Your task to perform on an android device: open the mobile data screen to see how much data has been used Image 0: 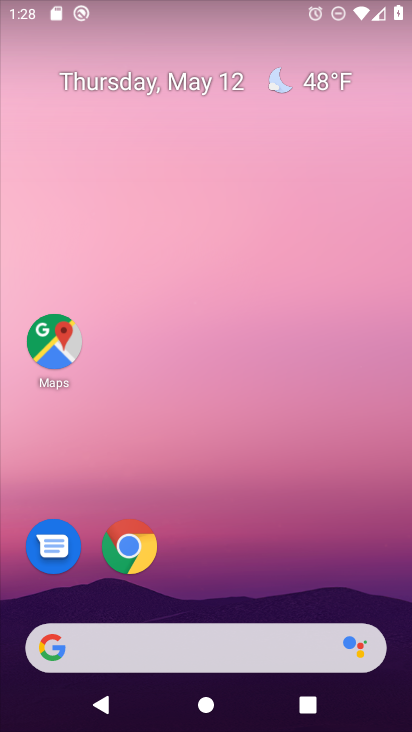
Step 0: drag from (170, 661) to (326, 149)
Your task to perform on an android device: open the mobile data screen to see how much data has been used Image 1: 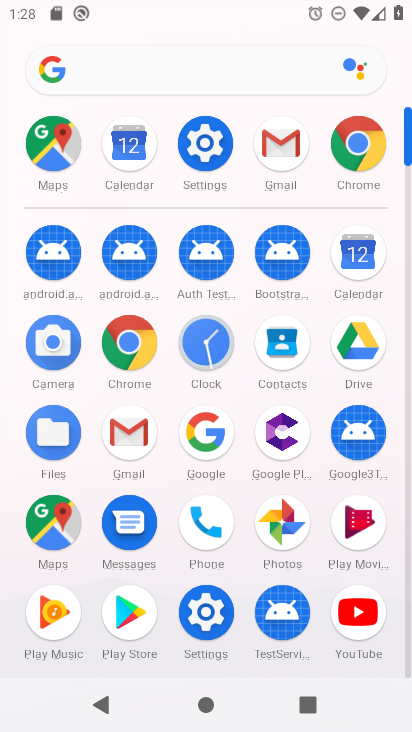
Step 1: click (214, 146)
Your task to perform on an android device: open the mobile data screen to see how much data has been used Image 2: 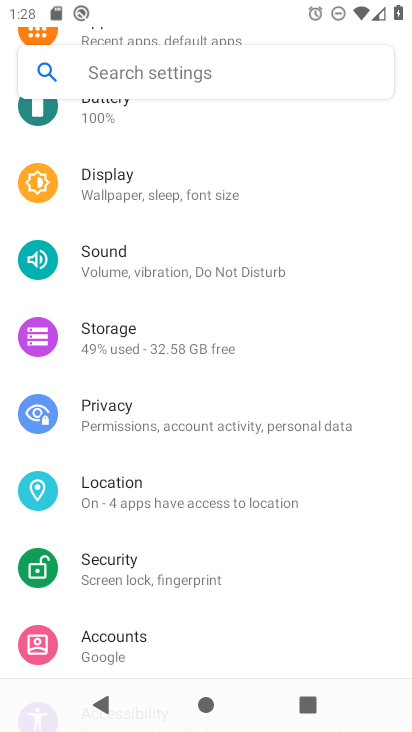
Step 2: drag from (244, 124) to (208, 518)
Your task to perform on an android device: open the mobile data screen to see how much data has been used Image 3: 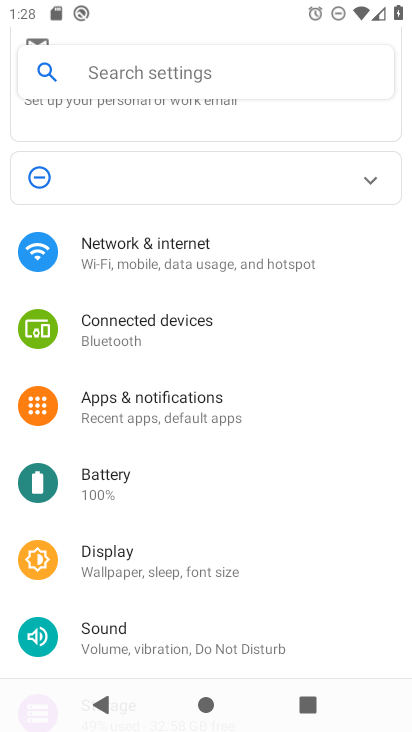
Step 3: click (255, 258)
Your task to perform on an android device: open the mobile data screen to see how much data has been used Image 4: 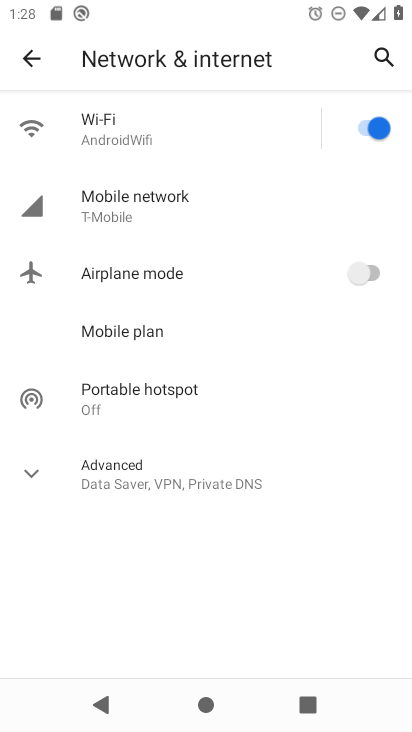
Step 4: click (135, 208)
Your task to perform on an android device: open the mobile data screen to see how much data has been used Image 5: 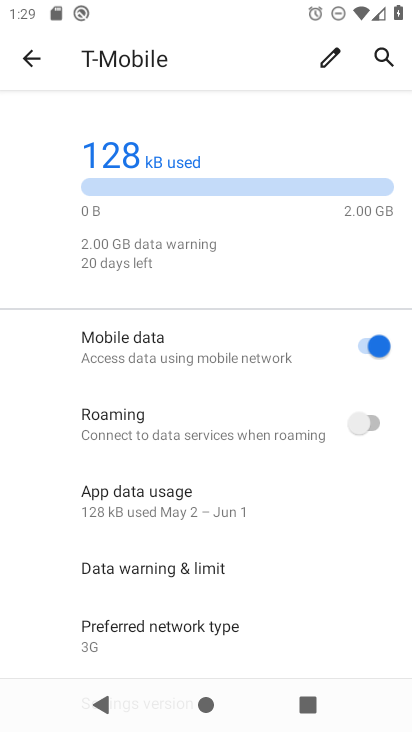
Step 5: task complete